Your task to perform on an android device: Open Google Maps and go to "Timeline" Image 0: 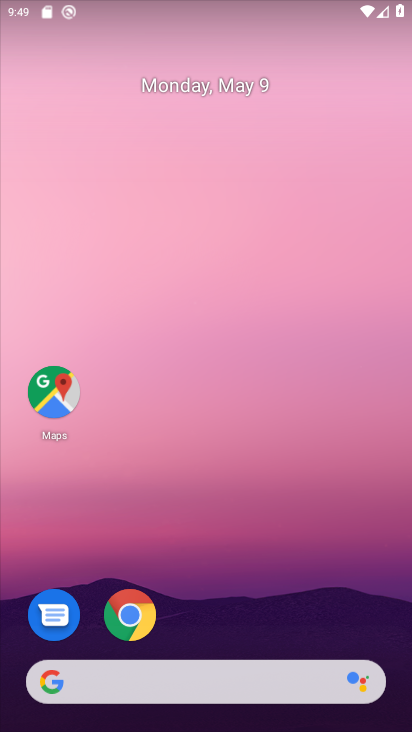
Step 0: drag from (199, 590) to (257, 250)
Your task to perform on an android device: Open Google Maps and go to "Timeline" Image 1: 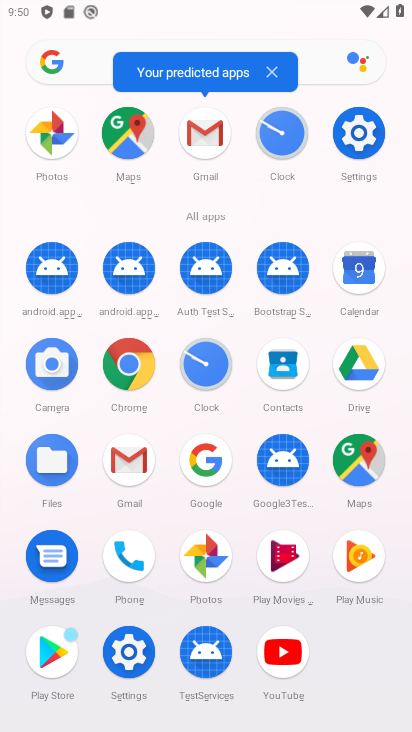
Step 1: click (360, 462)
Your task to perform on an android device: Open Google Maps and go to "Timeline" Image 2: 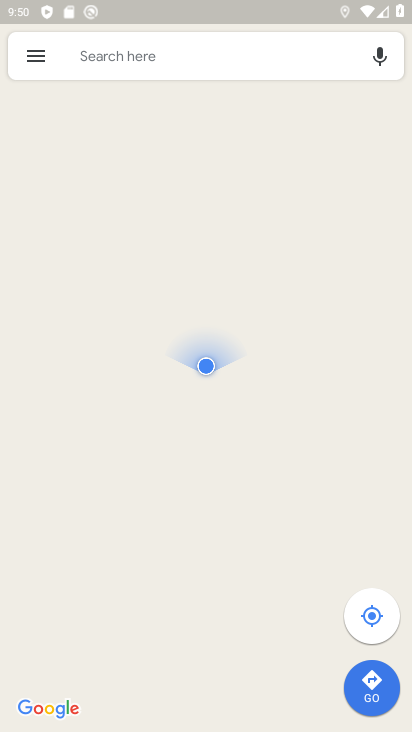
Step 2: click (36, 55)
Your task to perform on an android device: Open Google Maps and go to "Timeline" Image 3: 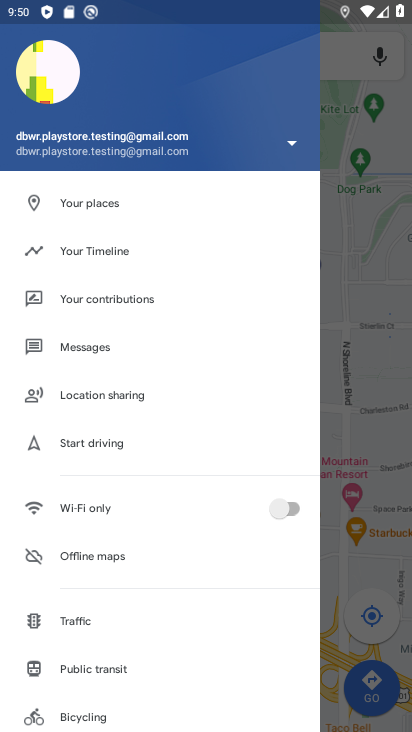
Step 3: click (121, 255)
Your task to perform on an android device: Open Google Maps and go to "Timeline" Image 4: 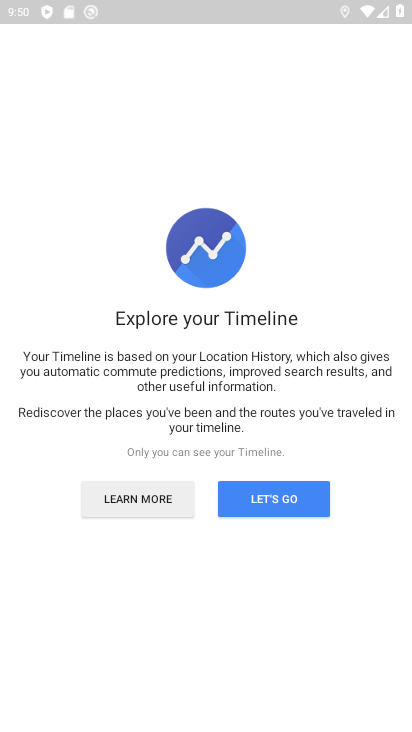
Step 4: task complete